Your task to perform on an android device: Open Reddit.com Image 0: 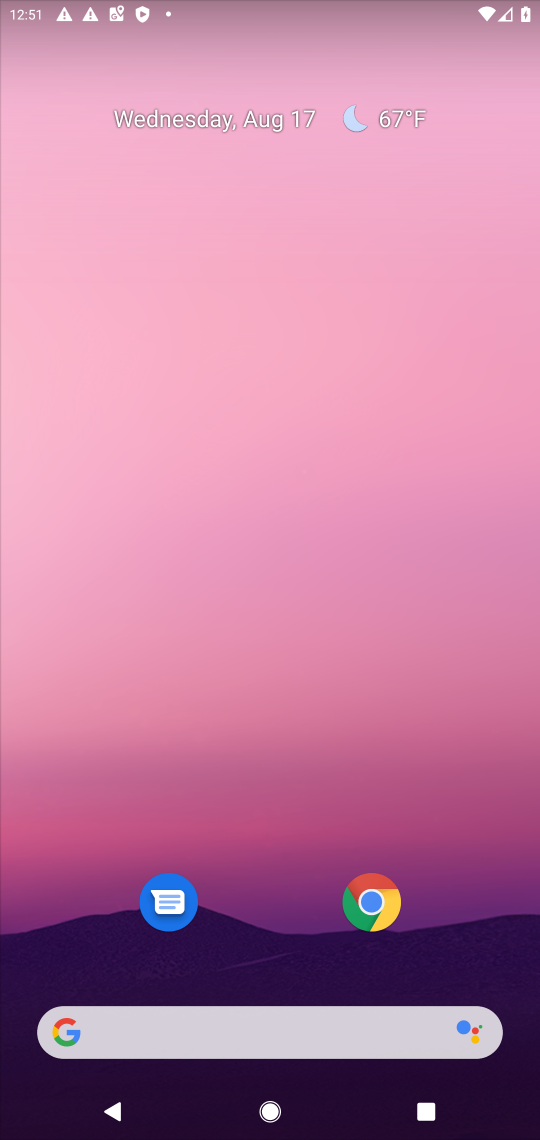
Step 0: drag from (269, 888) to (322, 9)
Your task to perform on an android device: Open Reddit.com Image 1: 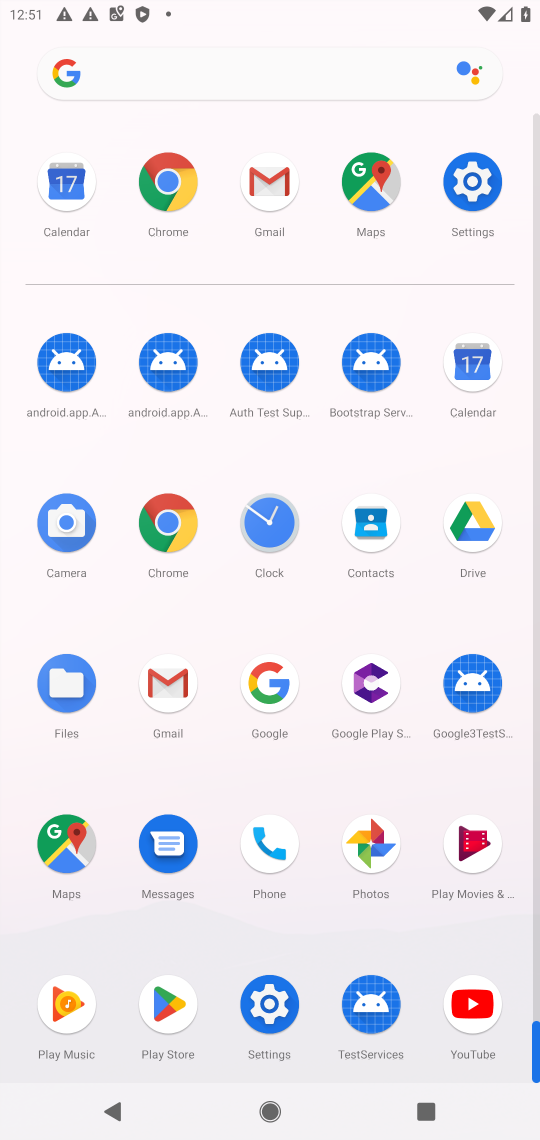
Step 1: click (181, 543)
Your task to perform on an android device: Open Reddit.com Image 2: 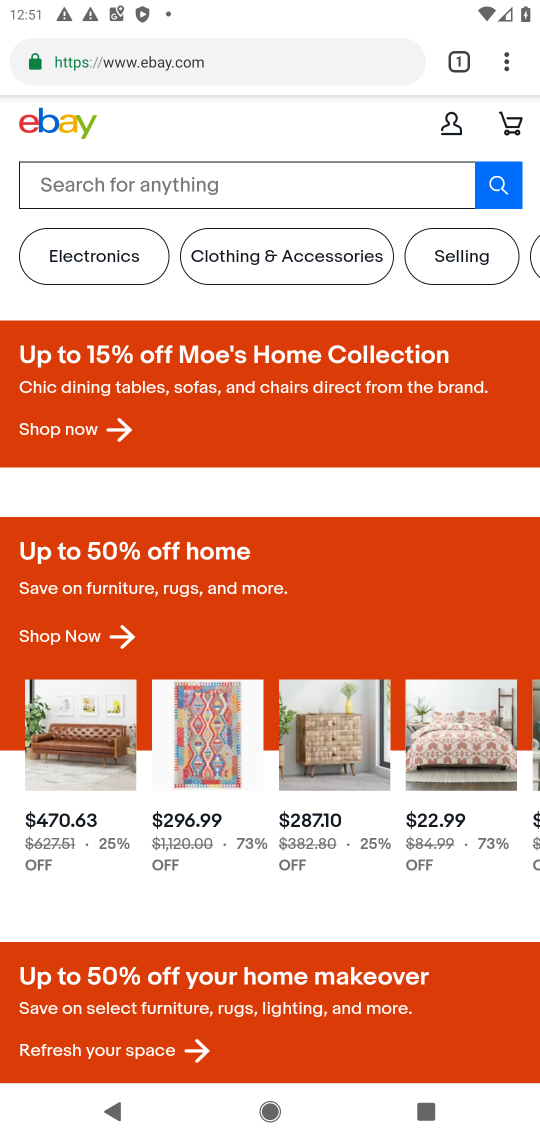
Step 2: click (252, 56)
Your task to perform on an android device: Open Reddit.com Image 3: 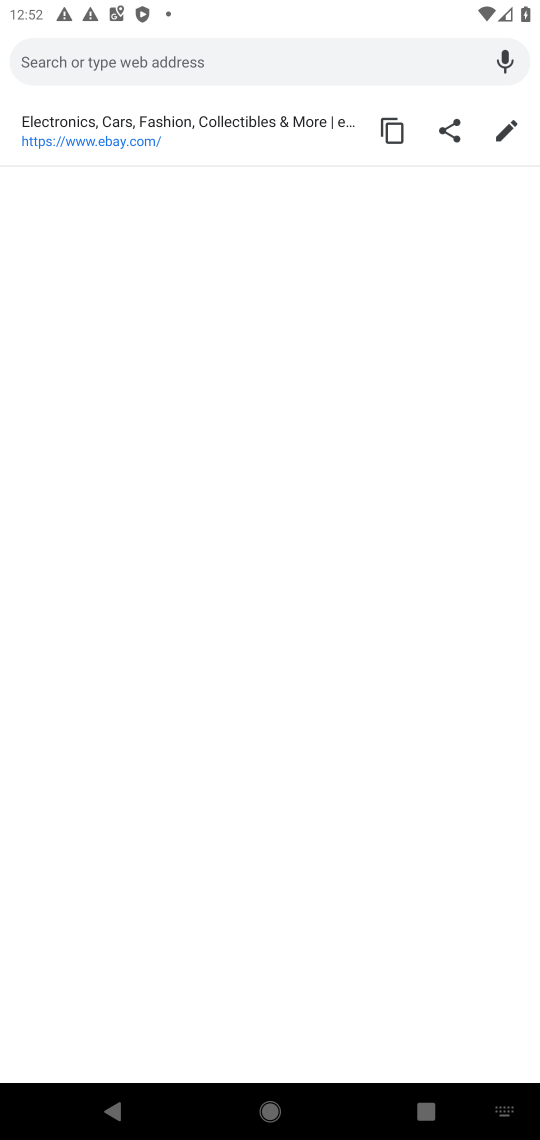
Step 3: type "Reddit.com"
Your task to perform on an android device: Open Reddit.com Image 4: 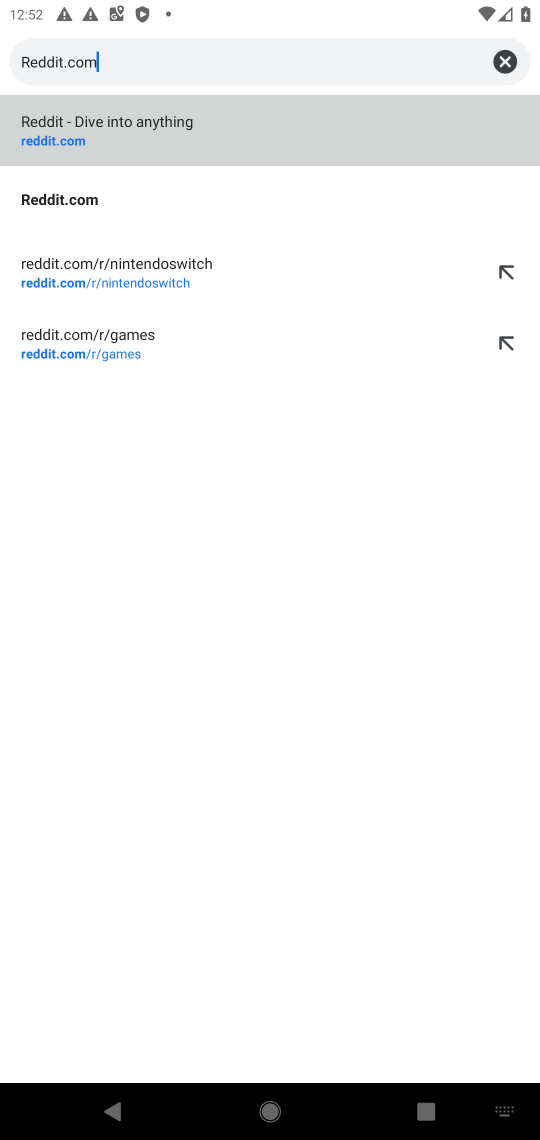
Step 4: click (122, 132)
Your task to perform on an android device: Open Reddit.com Image 5: 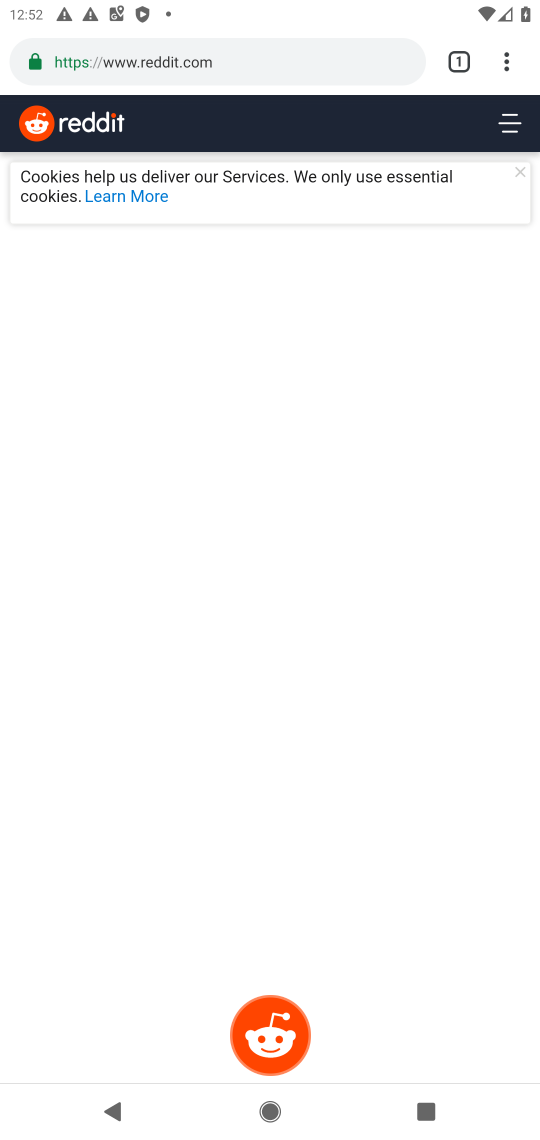
Step 5: task complete